Your task to perform on an android device: open app "Facebook Messenger" Image 0: 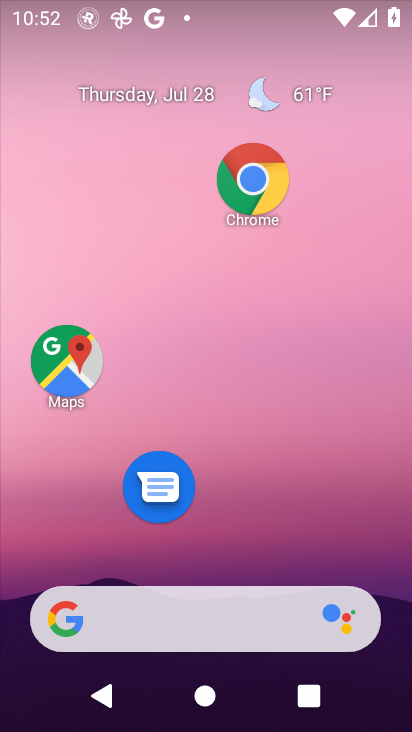
Step 0: drag from (261, 529) to (261, 339)
Your task to perform on an android device: open app "Facebook Messenger" Image 1: 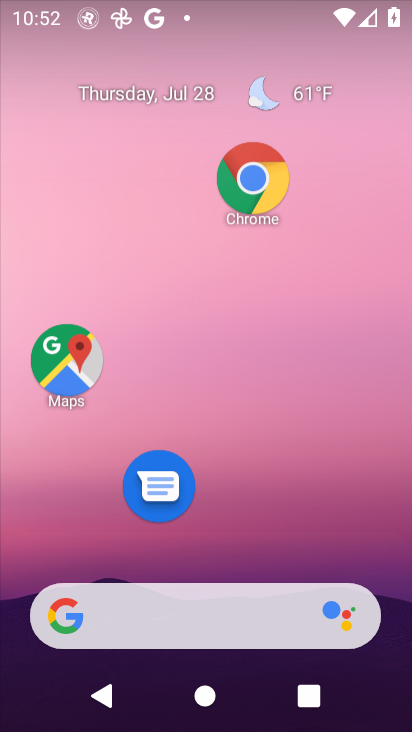
Step 1: drag from (273, 521) to (259, 193)
Your task to perform on an android device: open app "Facebook Messenger" Image 2: 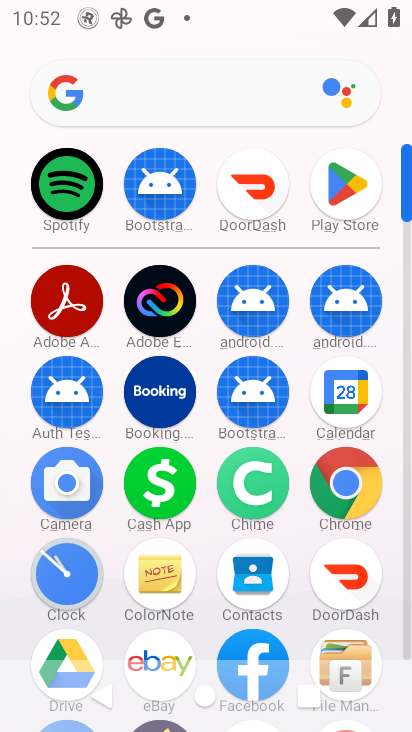
Step 2: drag from (272, 547) to (244, 341)
Your task to perform on an android device: open app "Facebook Messenger" Image 3: 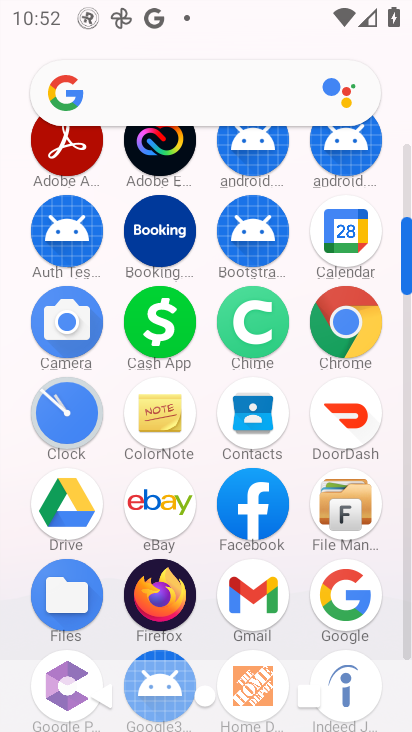
Step 3: drag from (297, 244) to (332, 514)
Your task to perform on an android device: open app "Facebook Messenger" Image 4: 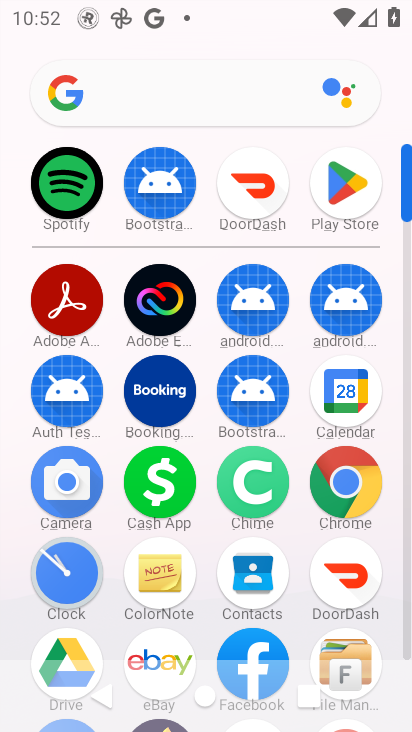
Step 4: click (356, 180)
Your task to perform on an android device: open app "Facebook Messenger" Image 5: 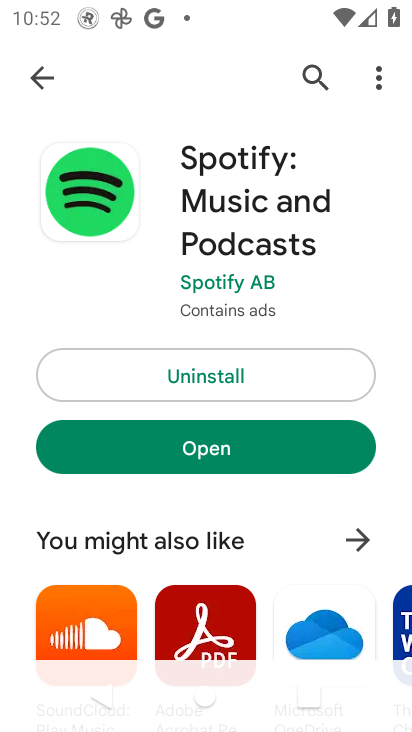
Step 5: click (35, 76)
Your task to perform on an android device: open app "Facebook Messenger" Image 6: 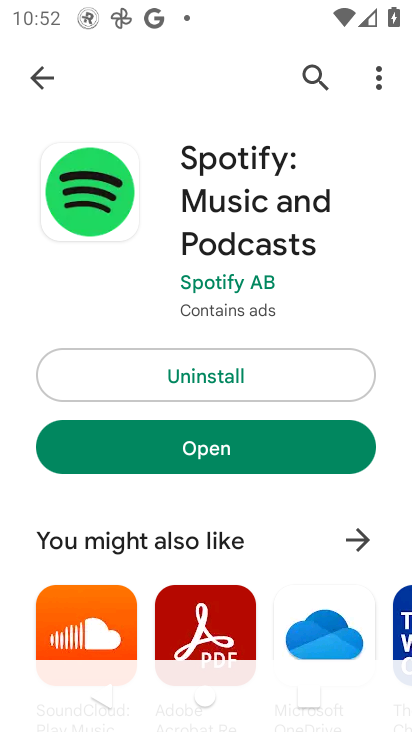
Step 6: click (42, 84)
Your task to perform on an android device: open app "Facebook Messenger" Image 7: 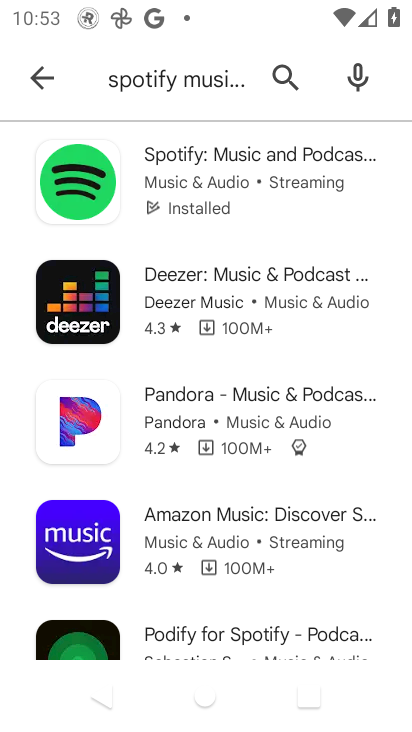
Step 7: click (46, 77)
Your task to perform on an android device: open app "Facebook Messenger" Image 8: 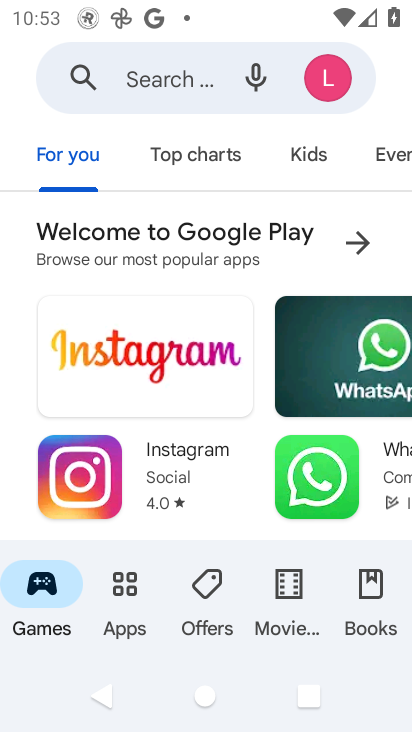
Step 8: click (144, 84)
Your task to perform on an android device: open app "Facebook Messenger" Image 9: 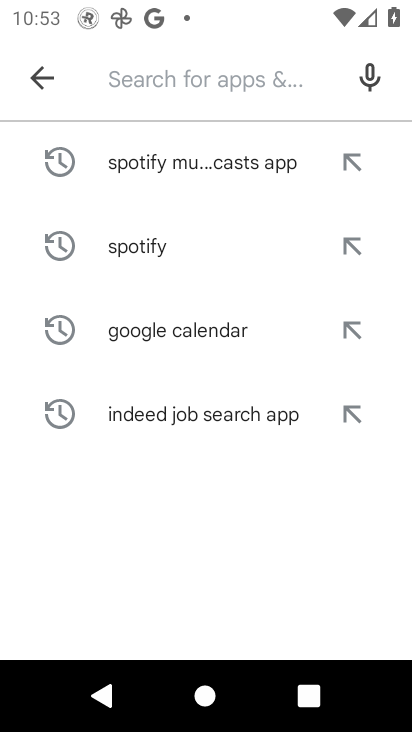
Step 9: type "Facebook Messenger"
Your task to perform on an android device: open app "Facebook Messenger" Image 10: 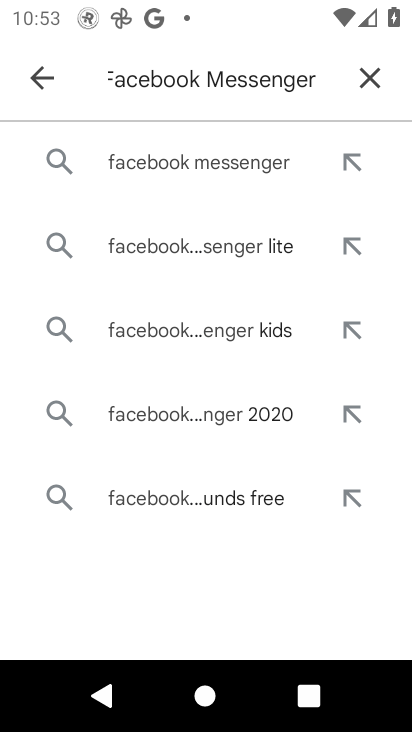
Step 10: click (256, 166)
Your task to perform on an android device: open app "Facebook Messenger" Image 11: 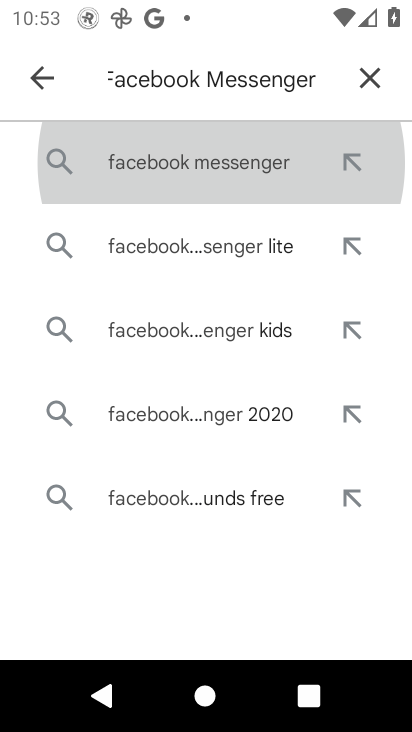
Step 11: click (256, 166)
Your task to perform on an android device: open app "Facebook Messenger" Image 12: 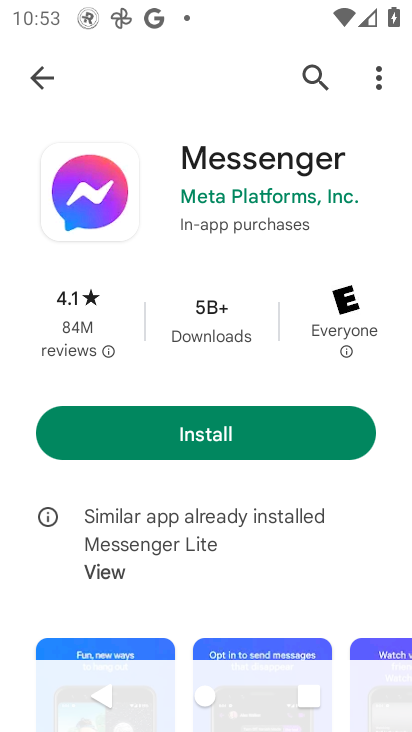
Step 12: click (233, 434)
Your task to perform on an android device: open app "Facebook Messenger" Image 13: 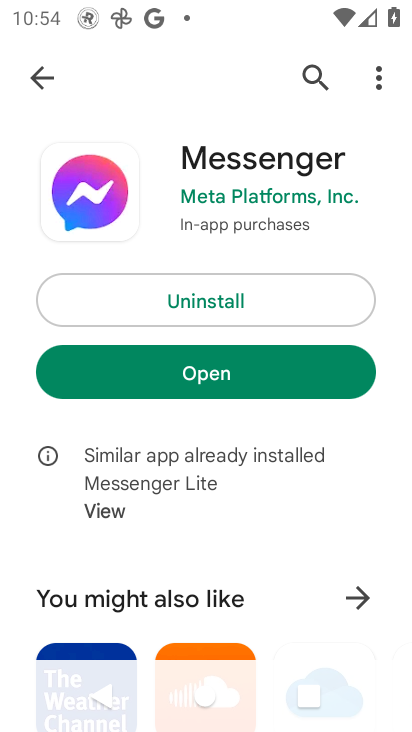
Step 13: click (35, 68)
Your task to perform on an android device: open app "Facebook Messenger" Image 14: 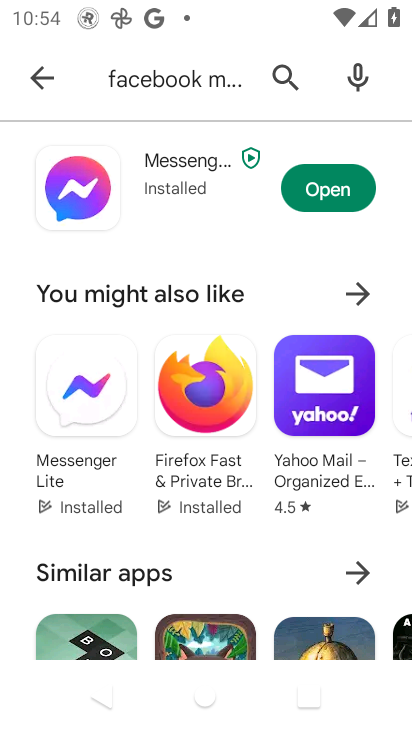
Step 14: task complete